Your task to perform on an android device: toggle airplane mode Image 0: 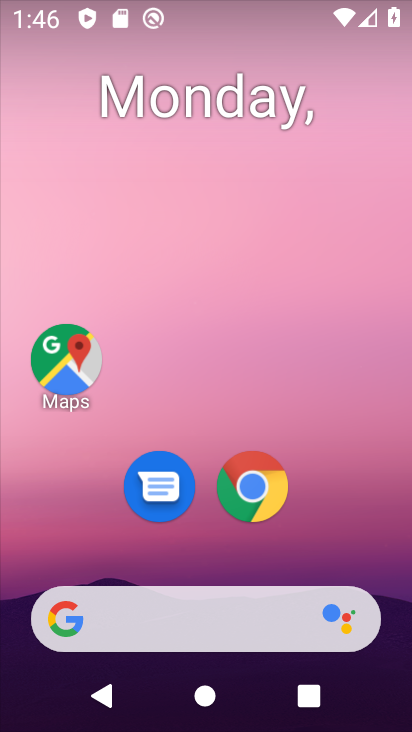
Step 0: drag from (73, 622) to (220, 93)
Your task to perform on an android device: toggle airplane mode Image 1: 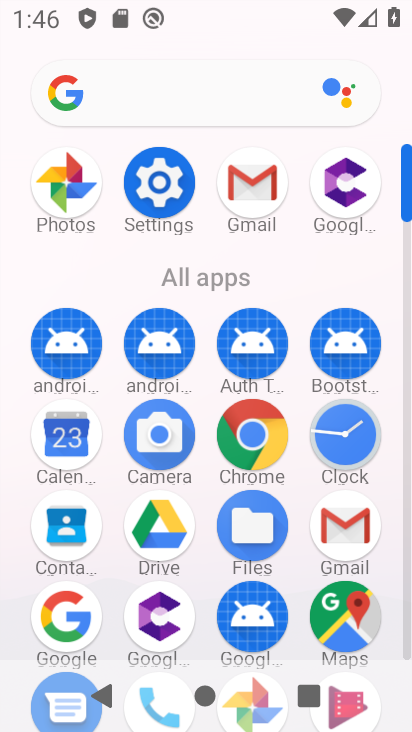
Step 1: click (159, 214)
Your task to perform on an android device: toggle airplane mode Image 2: 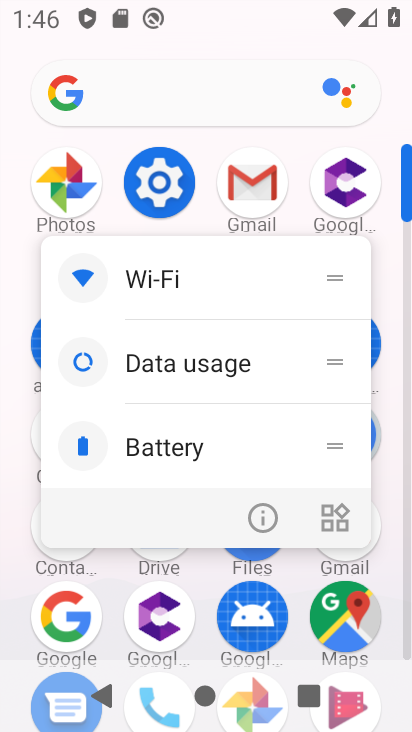
Step 2: click (159, 214)
Your task to perform on an android device: toggle airplane mode Image 3: 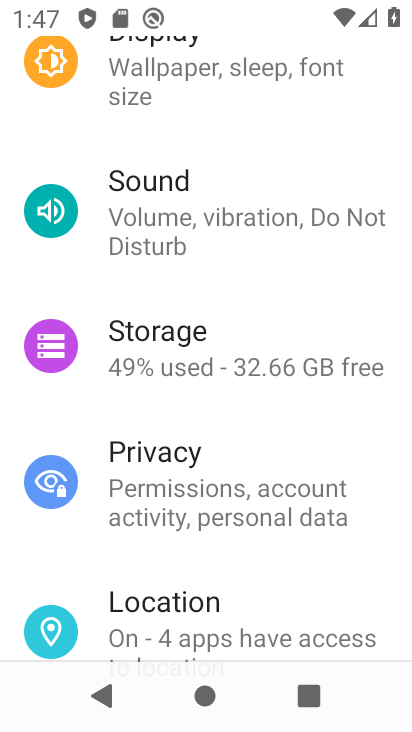
Step 3: drag from (193, 557) to (339, 197)
Your task to perform on an android device: toggle airplane mode Image 4: 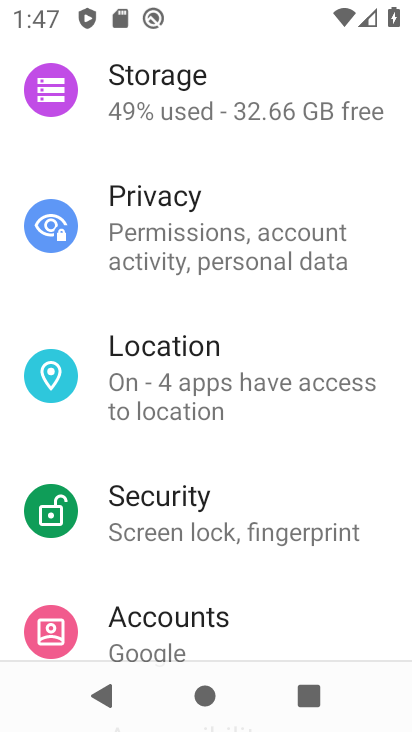
Step 4: drag from (260, 575) to (298, 238)
Your task to perform on an android device: toggle airplane mode Image 5: 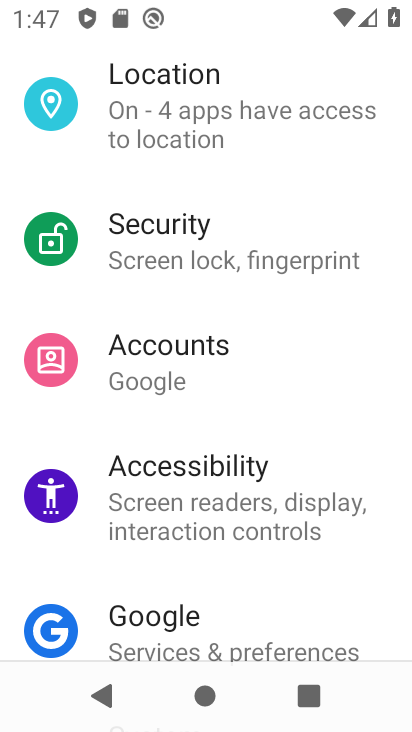
Step 5: drag from (252, 597) to (410, 284)
Your task to perform on an android device: toggle airplane mode Image 6: 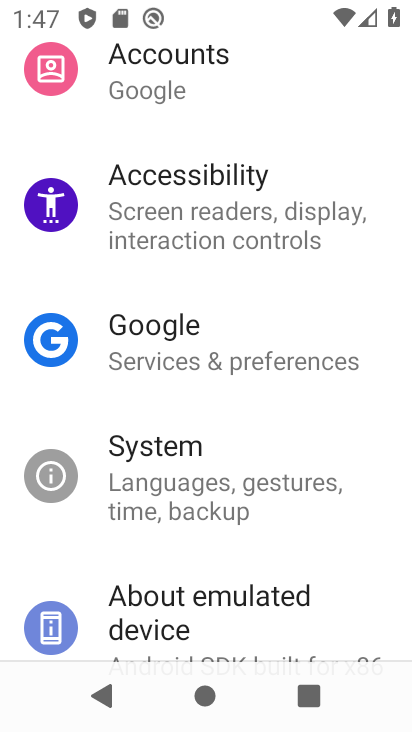
Step 6: drag from (137, 513) to (245, 248)
Your task to perform on an android device: toggle airplane mode Image 7: 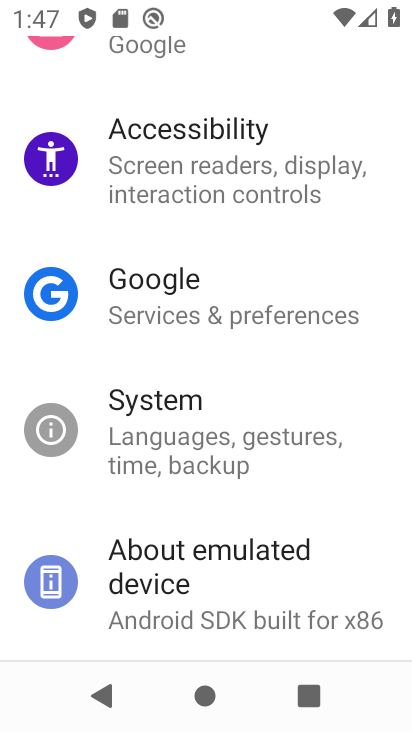
Step 7: drag from (322, 233) to (232, 601)
Your task to perform on an android device: toggle airplane mode Image 8: 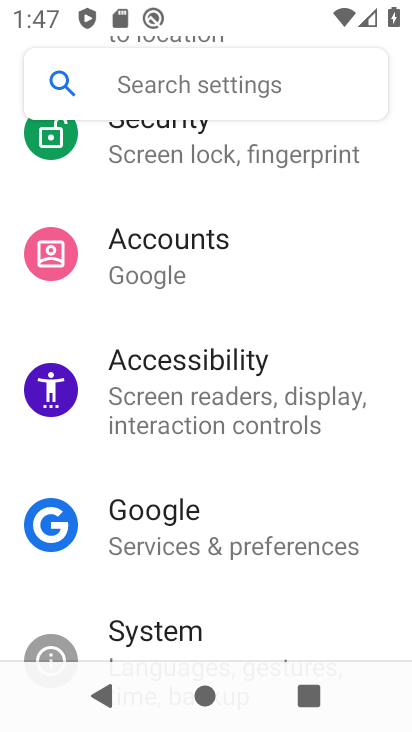
Step 8: drag from (331, 220) to (280, 512)
Your task to perform on an android device: toggle airplane mode Image 9: 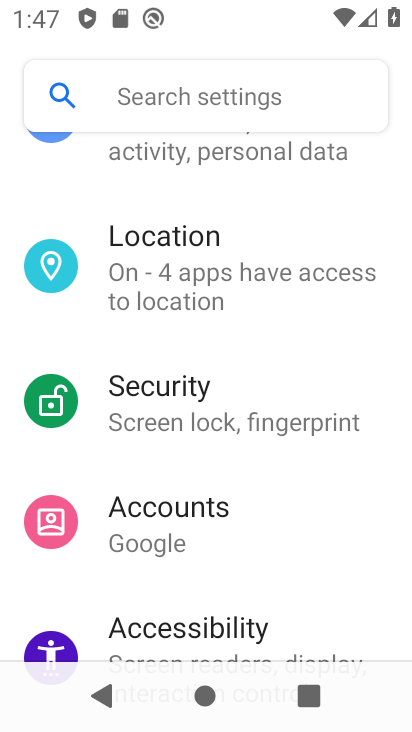
Step 9: drag from (324, 319) to (202, 516)
Your task to perform on an android device: toggle airplane mode Image 10: 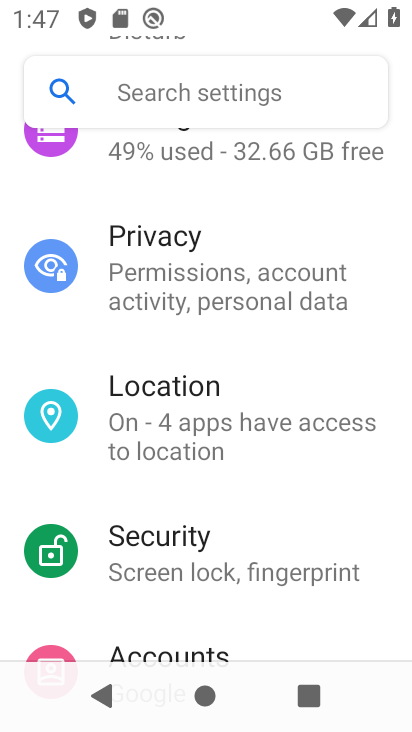
Step 10: drag from (275, 506) to (230, 506)
Your task to perform on an android device: toggle airplane mode Image 11: 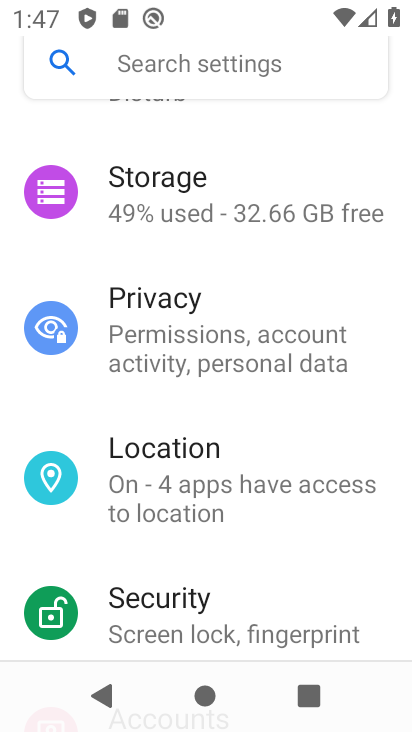
Step 11: drag from (301, 147) to (236, 541)
Your task to perform on an android device: toggle airplane mode Image 12: 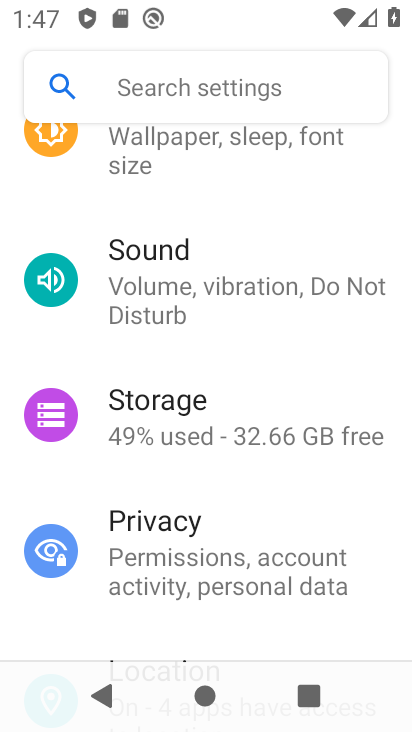
Step 12: drag from (329, 167) to (160, 497)
Your task to perform on an android device: toggle airplane mode Image 13: 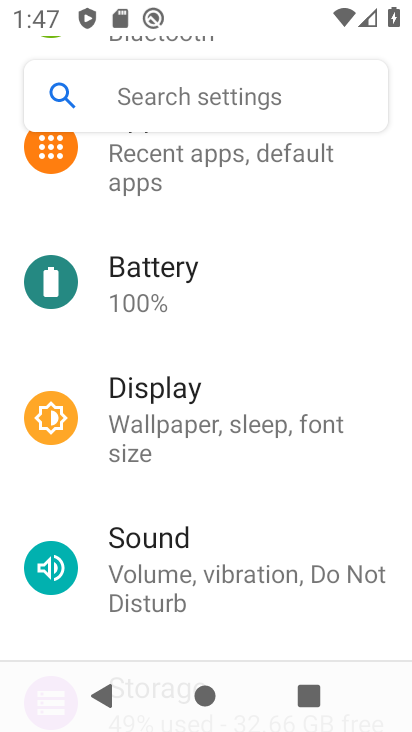
Step 13: drag from (331, 170) to (251, 480)
Your task to perform on an android device: toggle airplane mode Image 14: 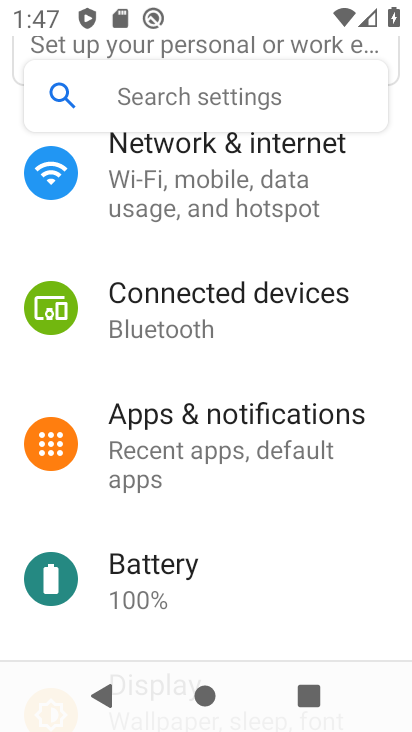
Step 14: drag from (297, 158) to (202, 518)
Your task to perform on an android device: toggle airplane mode Image 15: 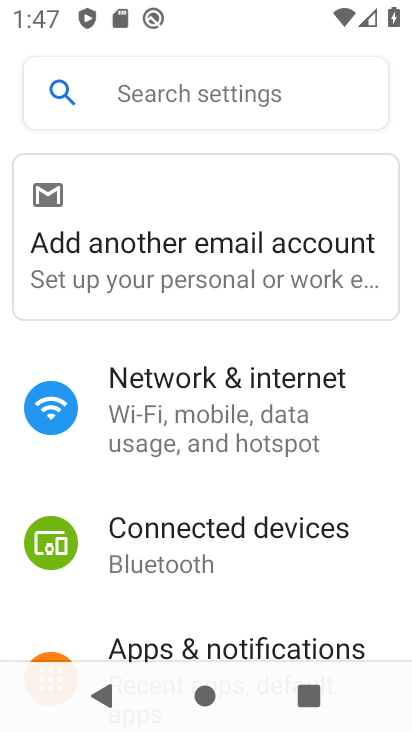
Step 15: click (284, 395)
Your task to perform on an android device: toggle airplane mode Image 16: 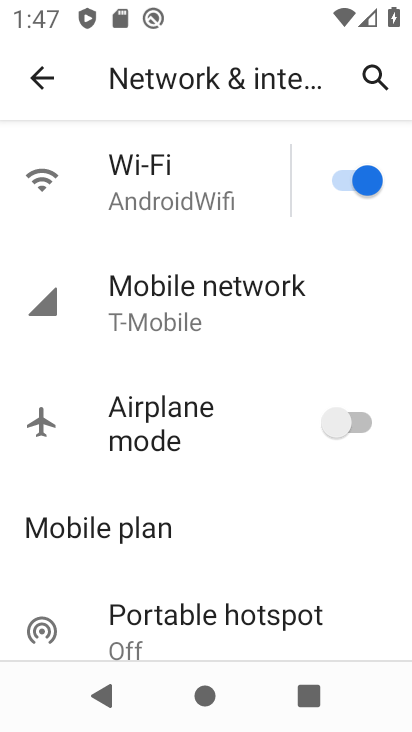
Step 16: click (361, 425)
Your task to perform on an android device: toggle airplane mode Image 17: 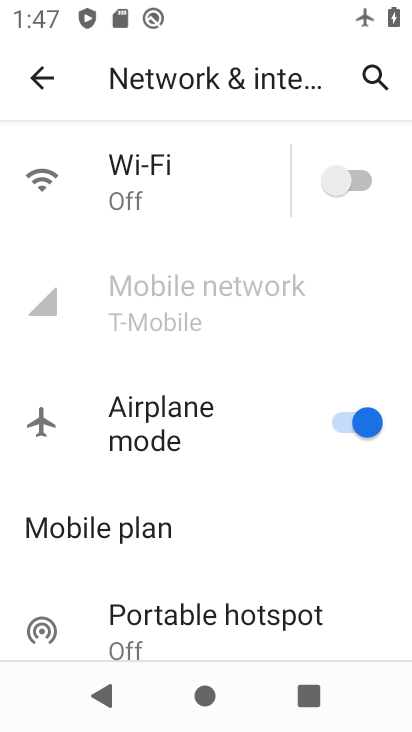
Step 17: task complete